Your task to perform on an android device: Go to display settings Image 0: 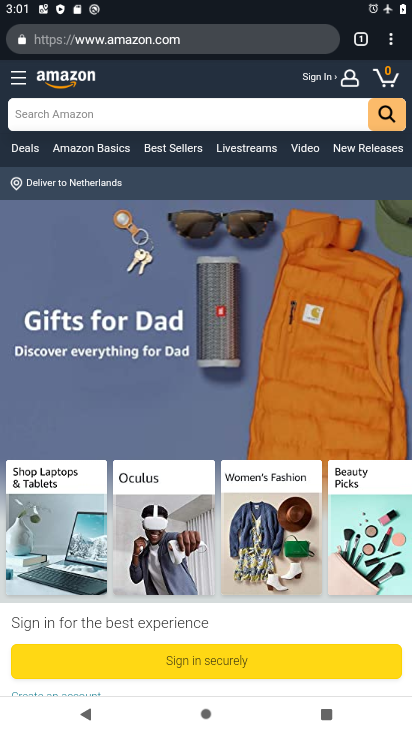
Step 0: press home button
Your task to perform on an android device: Go to display settings Image 1: 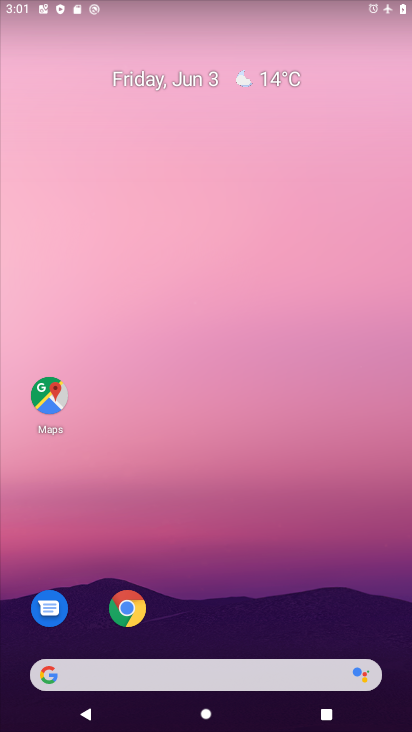
Step 1: drag from (210, 664) to (191, 146)
Your task to perform on an android device: Go to display settings Image 2: 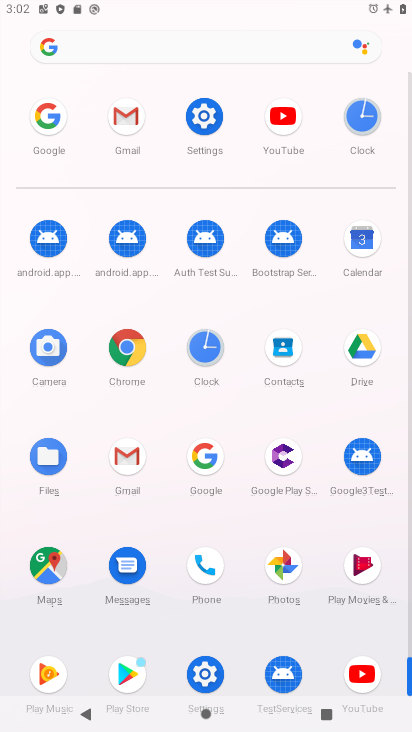
Step 2: click (204, 128)
Your task to perform on an android device: Go to display settings Image 3: 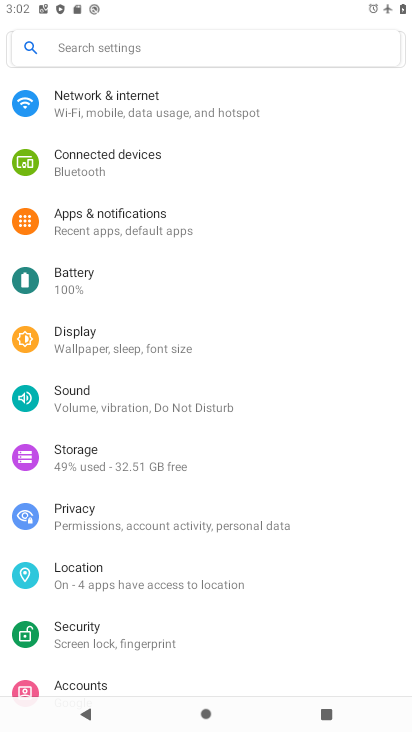
Step 3: click (76, 331)
Your task to perform on an android device: Go to display settings Image 4: 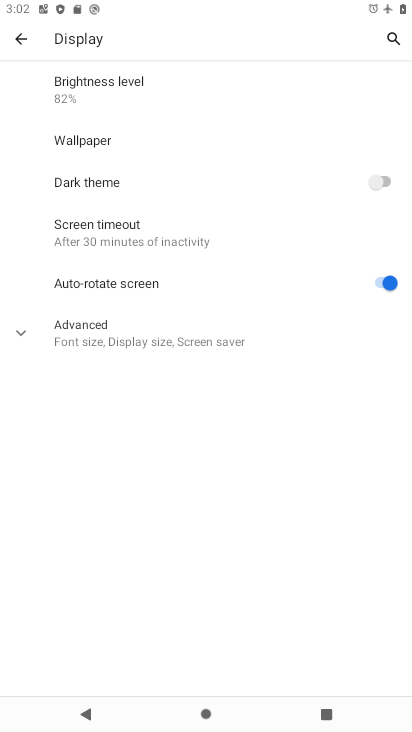
Step 4: task complete